Your task to perform on an android device: Is it going to rain this weekend? Image 0: 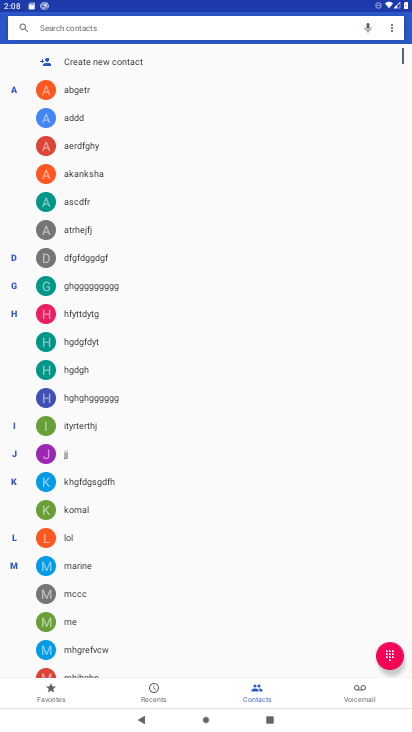
Step 0: press home button
Your task to perform on an android device: Is it going to rain this weekend? Image 1: 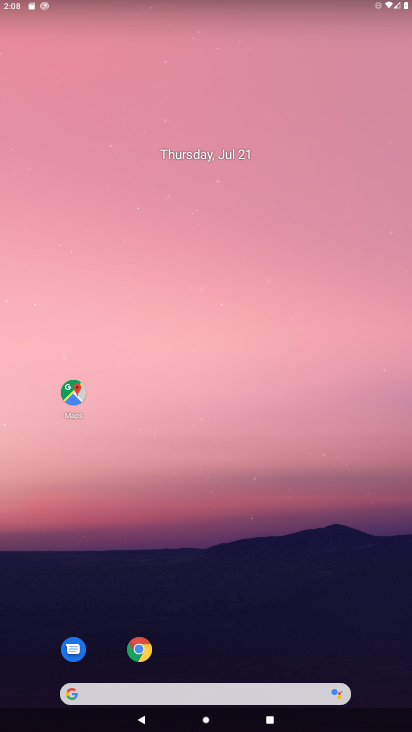
Step 1: drag from (231, 648) to (232, 48)
Your task to perform on an android device: Is it going to rain this weekend? Image 2: 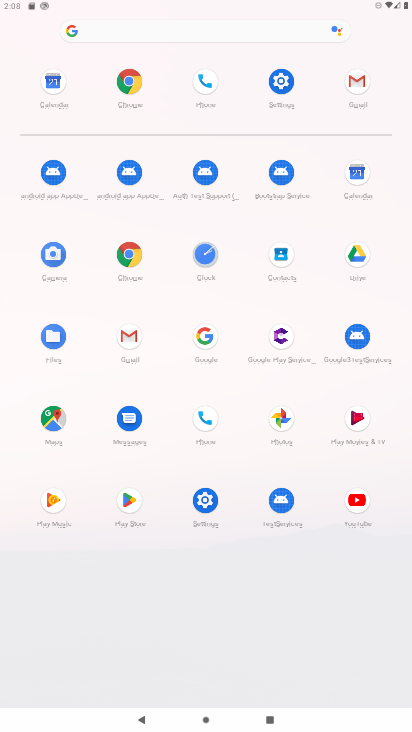
Step 2: click (203, 338)
Your task to perform on an android device: Is it going to rain this weekend? Image 3: 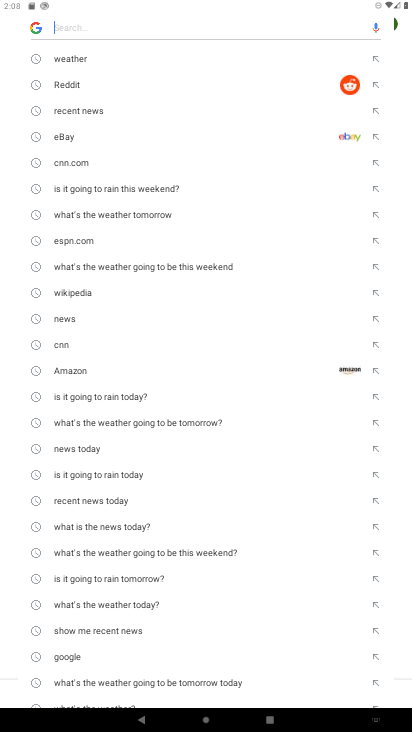
Step 3: click (59, 55)
Your task to perform on an android device: Is it going to rain this weekend? Image 4: 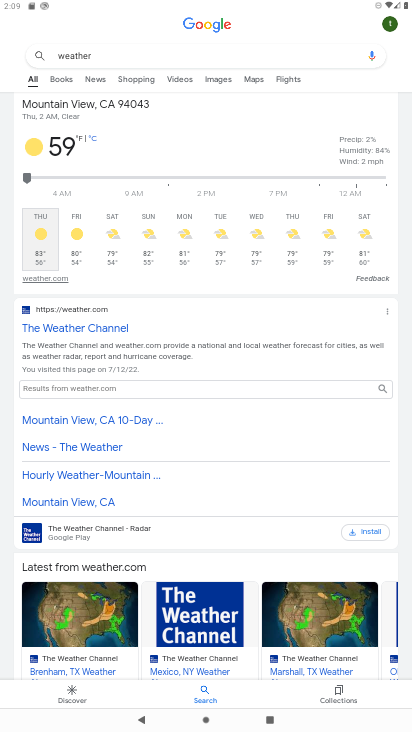
Step 4: task complete